Your task to perform on an android device: change timer sound Image 0: 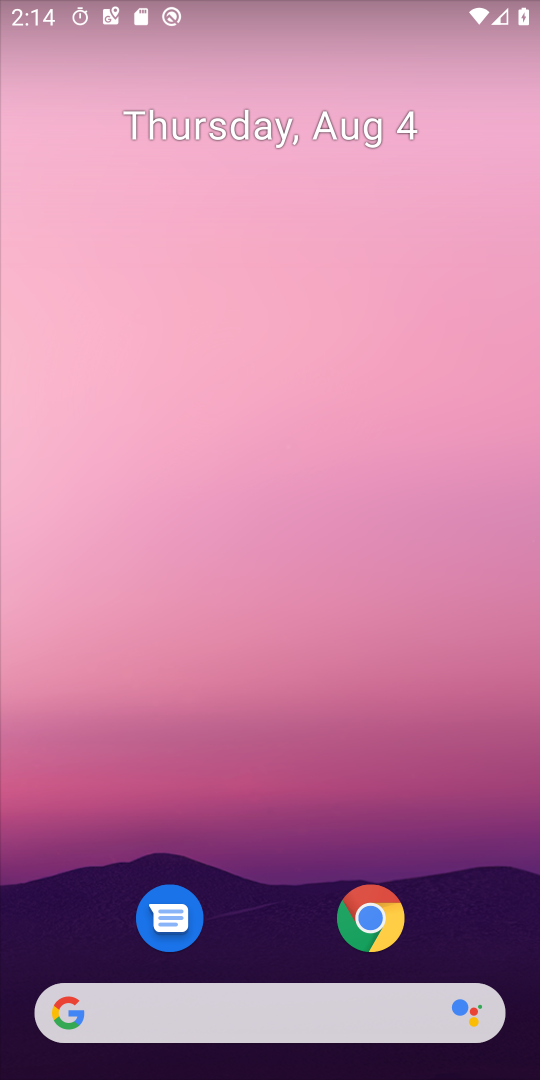
Step 0: drag from (279, 810) to (290, 346)
Your task to perform on an android device: change timer sound Image 1: 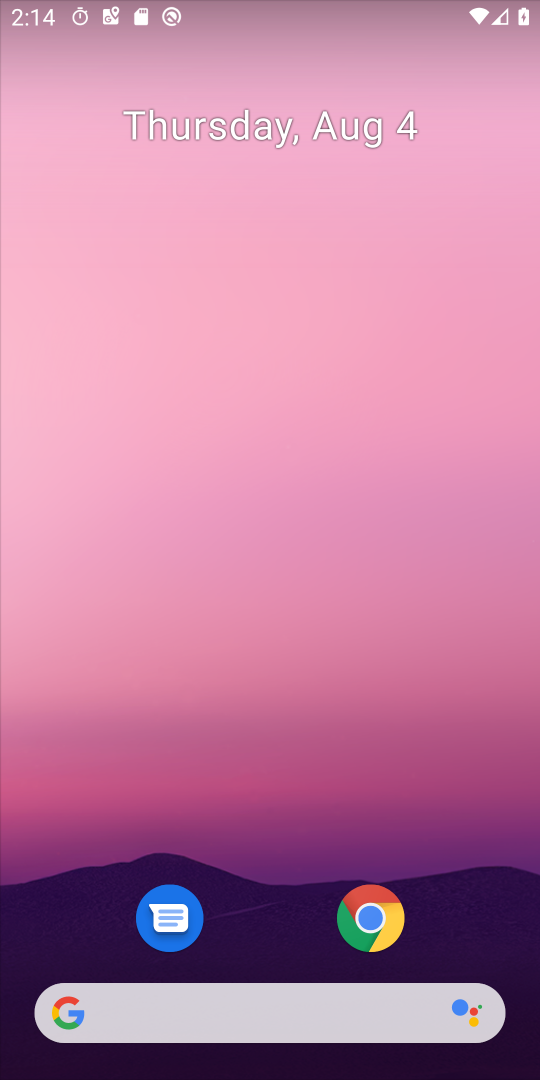
Step 1: drag from (257, 904) to (268, 349)
Your task to perform on an android device: change timer sound Image 2: 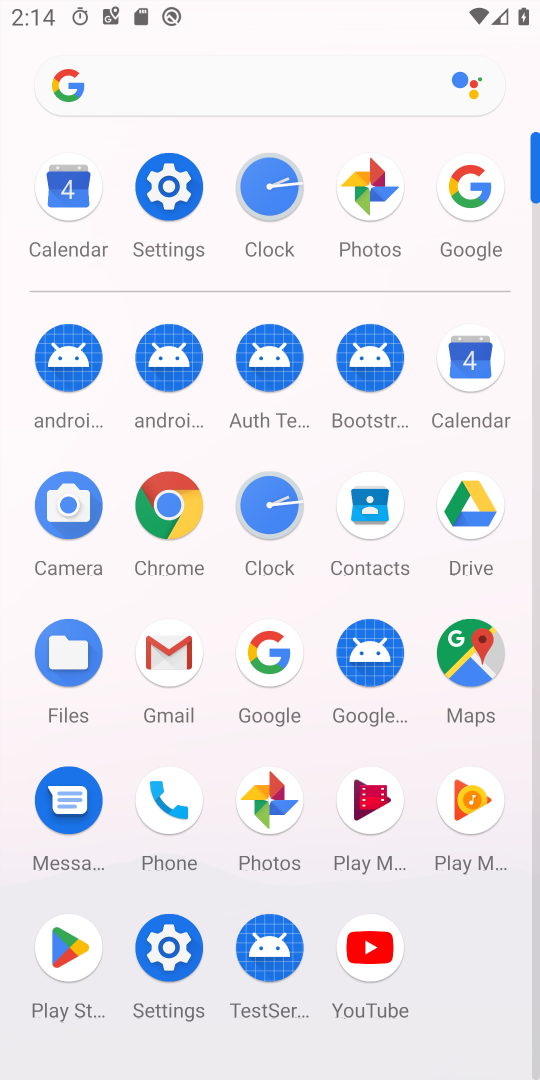
Step 2: click (273, 188)
Your task to perform on an android device: change timer sound Image 3: 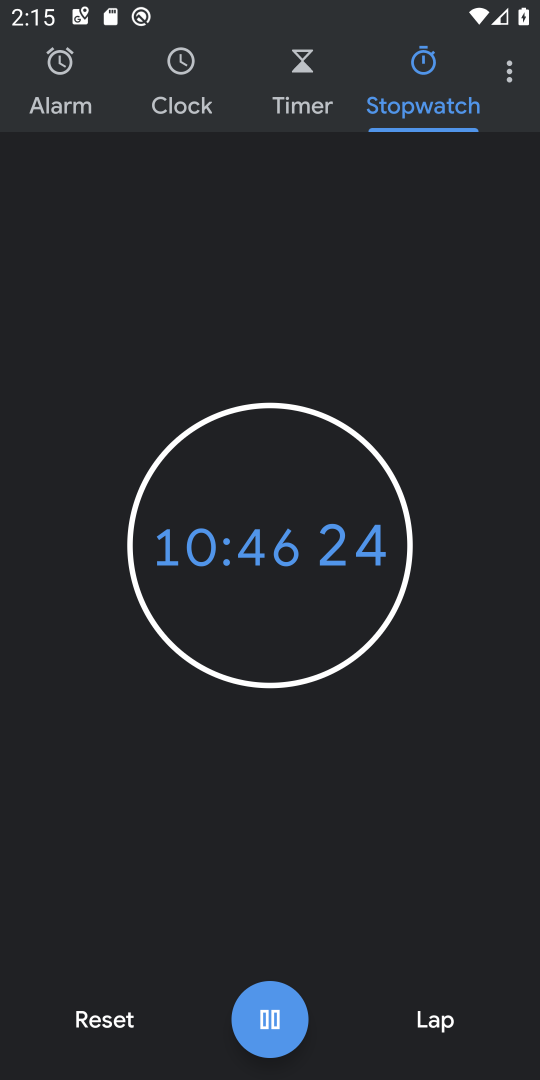
Step 3: click (502, 72)
Your task to perform on an android device: change timer sound Image 4: 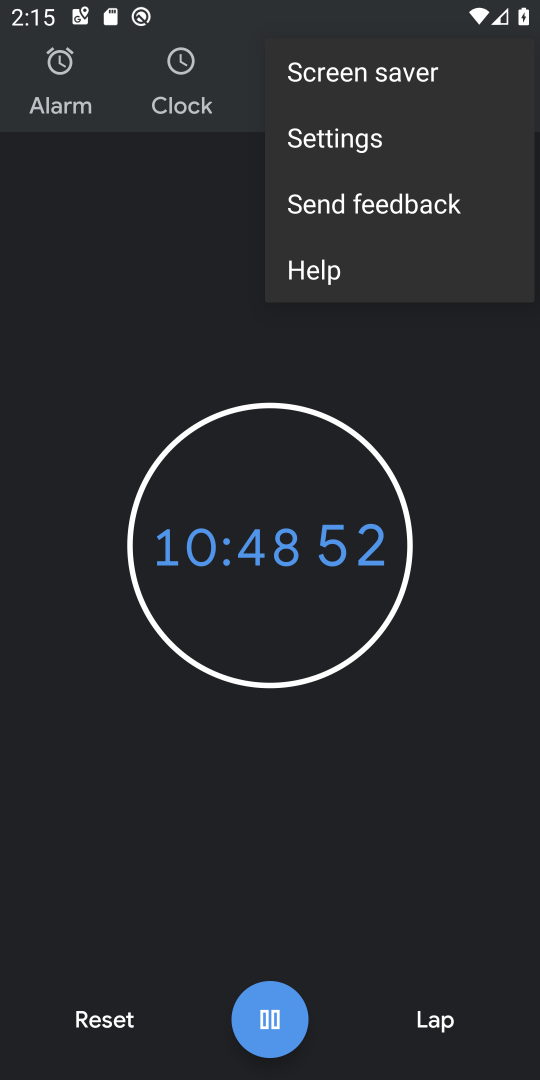
Step 4: click (372, 151)
Your task to perform on an android device: change timer sound Image 5: 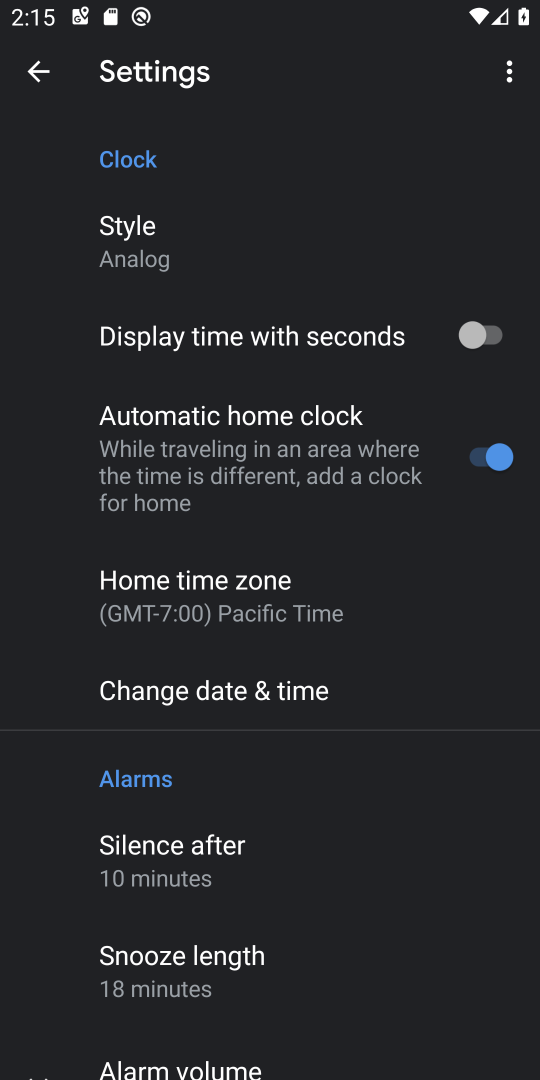
Step 5: drag from (312, 855) to (287, 421)
Your task to perform on an android device: change timer sound Image 6: 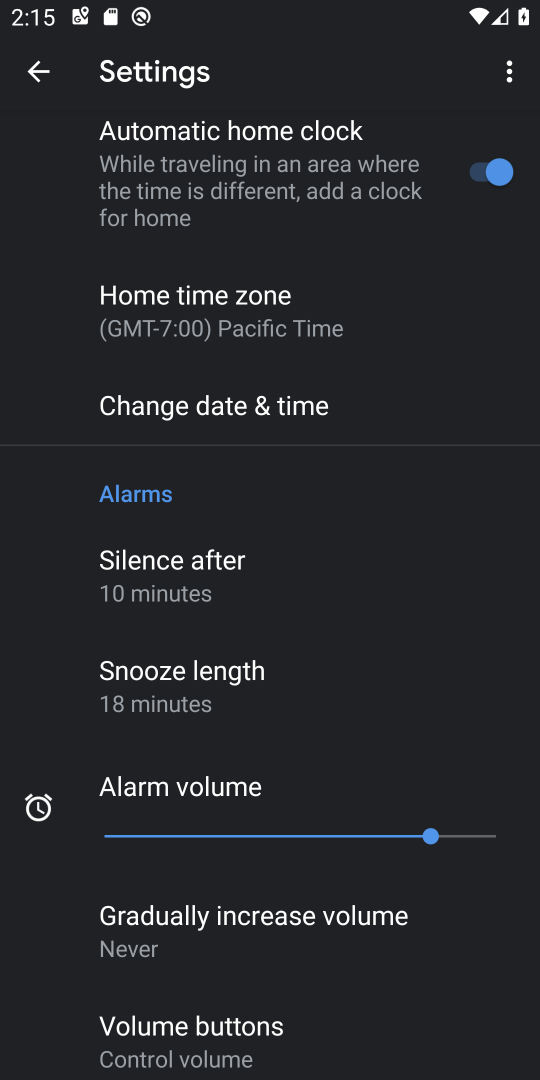
Step 6: drag from (278, 912) to (294, 520)
Your task to perform on an android device: change timer sound Image 7: 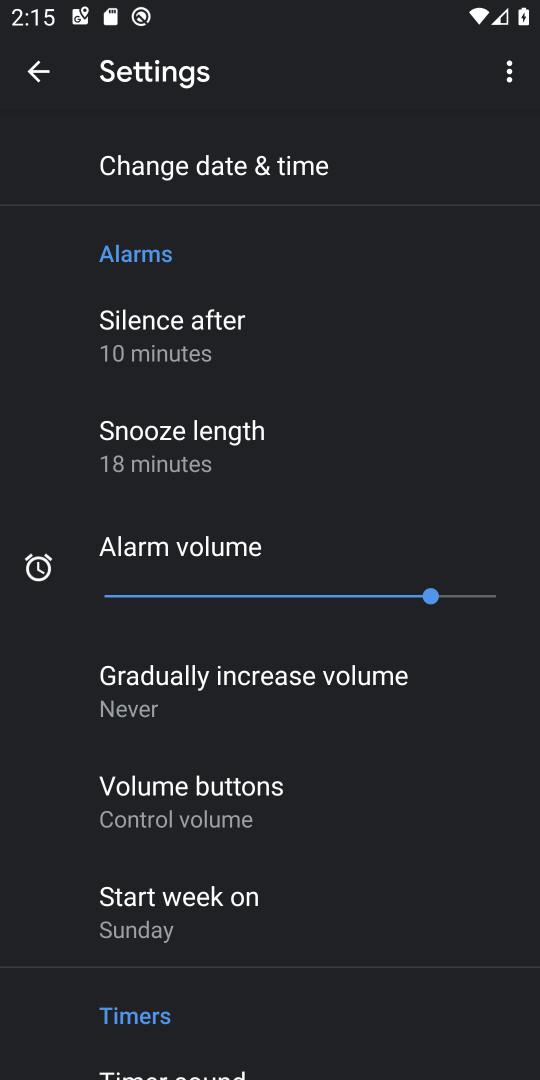
Step 7: drag from (293, 925) to (291, 531)
Your task to perform on an android device: change timer sound Image 8: 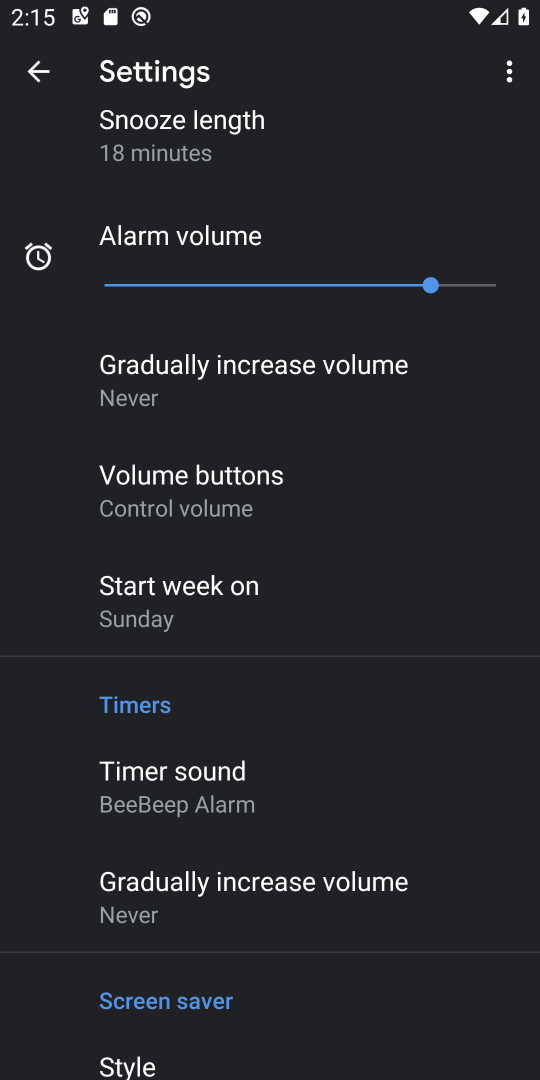
Step 8: click (260, 774)
Your task to perform on an android device: change timer sound Image 9: 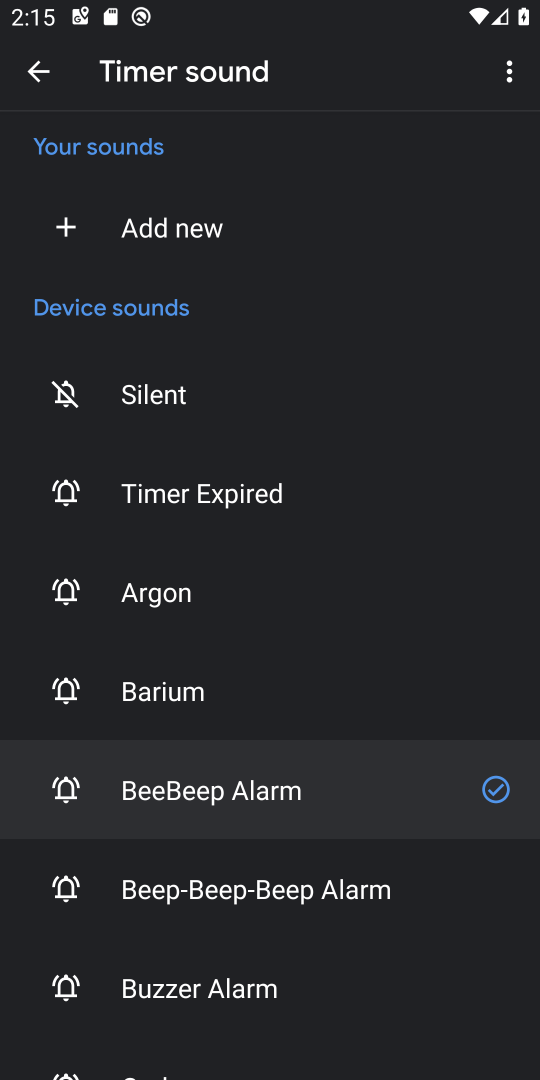
Step 9: click (252, 569)
Your task to perform on an android device: change timer sound Image 10: 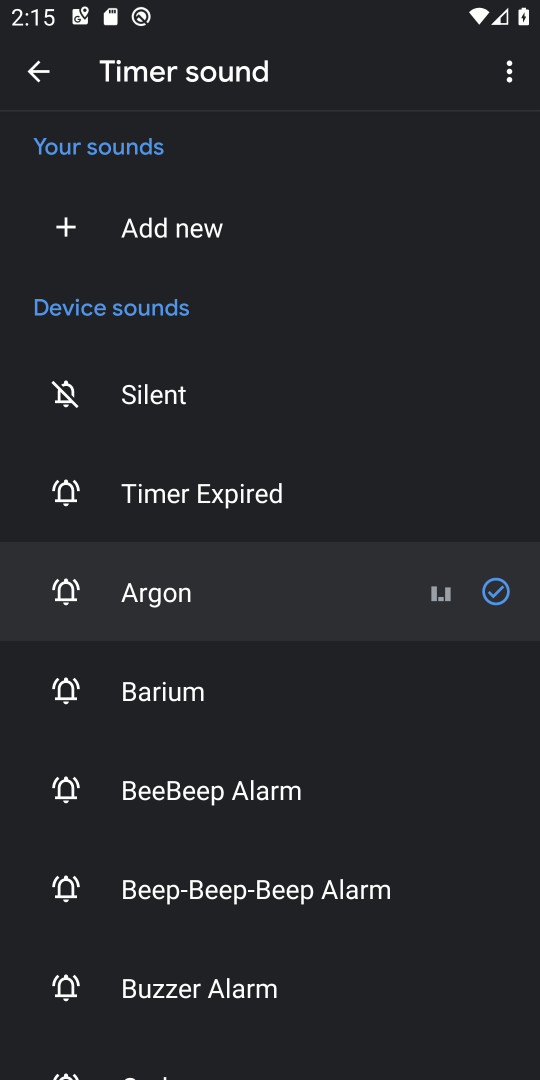
Step 10: task complete